Your task to perform on an android device: refresh tabs in the chrome app Image 0: 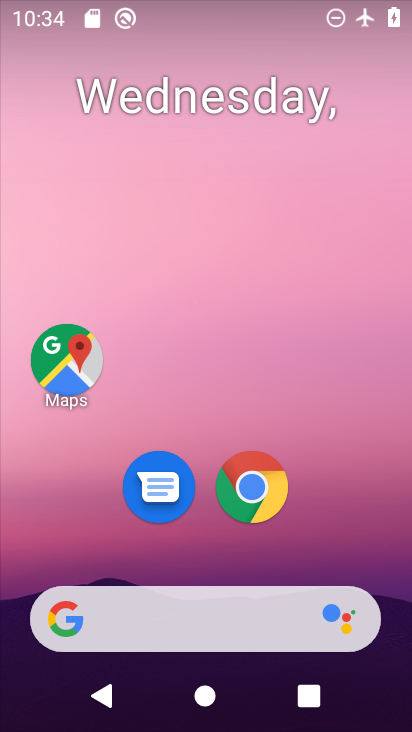
Step 0: click (248, 493)
Your task to perform on an android device: refresh tabs in the chrome app Image 1: 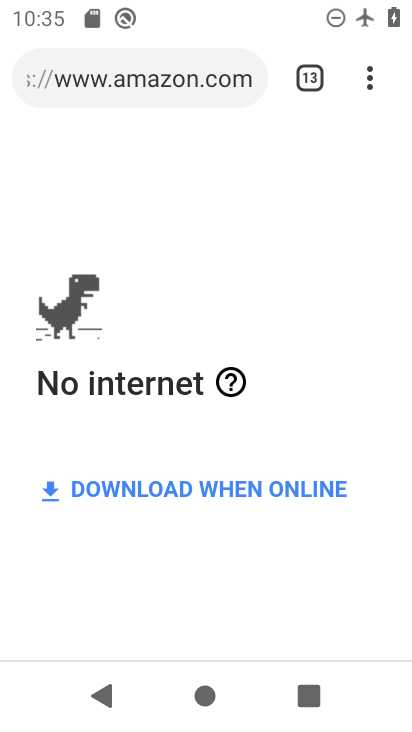
Step 1: click (358, 75)
Your task to perform on an android device: refresh tabs in the chrome app Image 2: 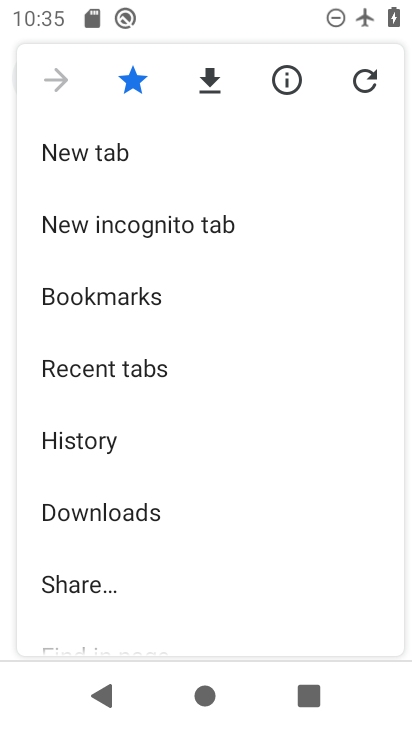
Step 2: click (362, 77)
Your task to perform on an android device: refresh tabs in the chrome app Image 3: 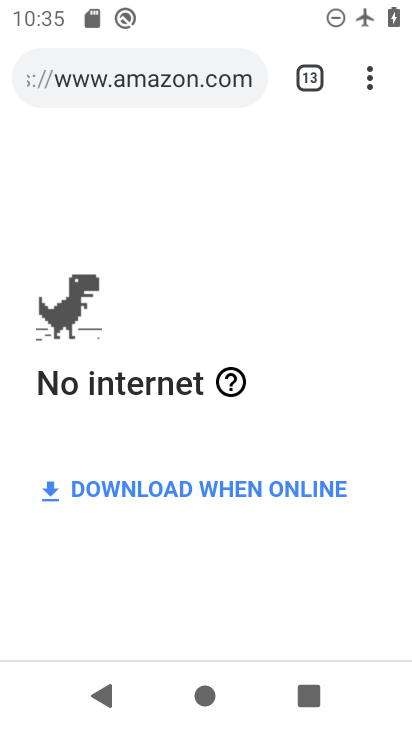
Step 3: task complete